Your task to perform on an android device: Go to privacy settings Image 0: 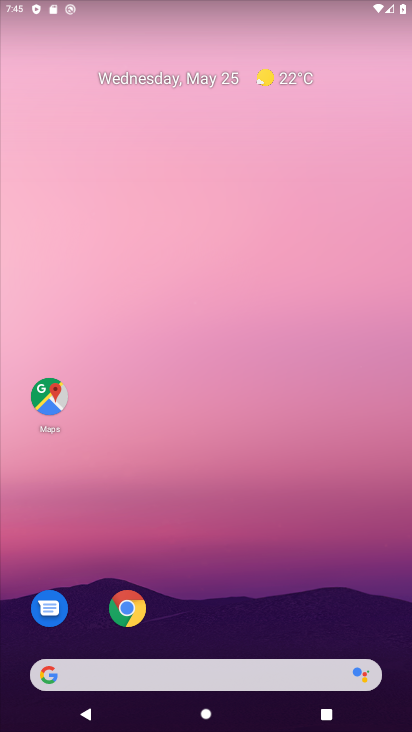
Step 0: drag from (259, 605) to (231, 125)
Your task to perform on an android device: Go to privacy settings Image 1: 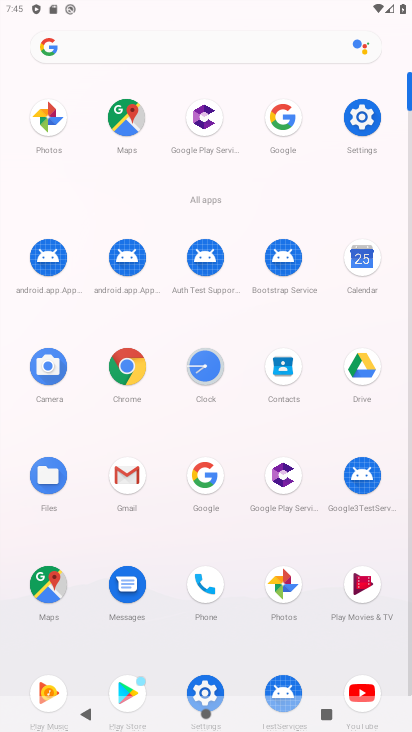
Step 1: click (361, 117)
Your task to perform on an android device: Go to privacy settings Image 2: 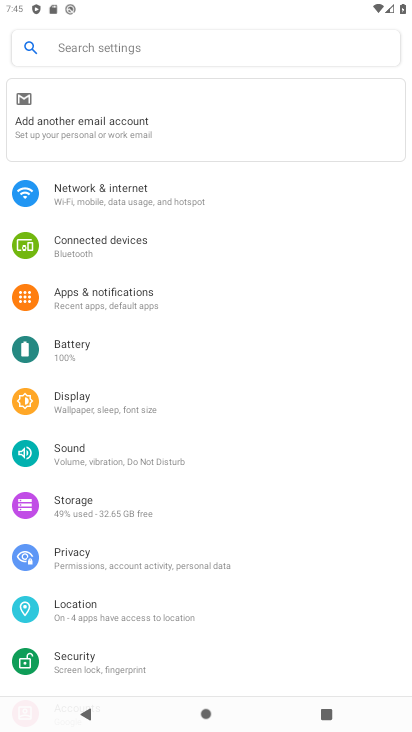
Step 2: click (72, 556)
Your task to perform on an android device: Go to privacy settings Image 3: 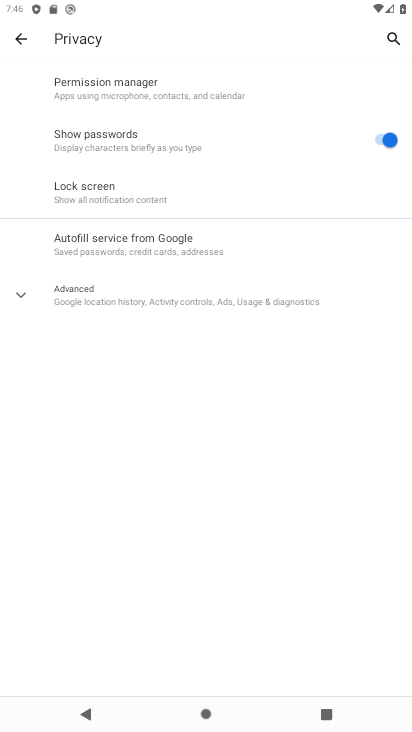
Step 3: task complete